Your task to perform on an android device: What's the weather going to be this weekend? Image 0: 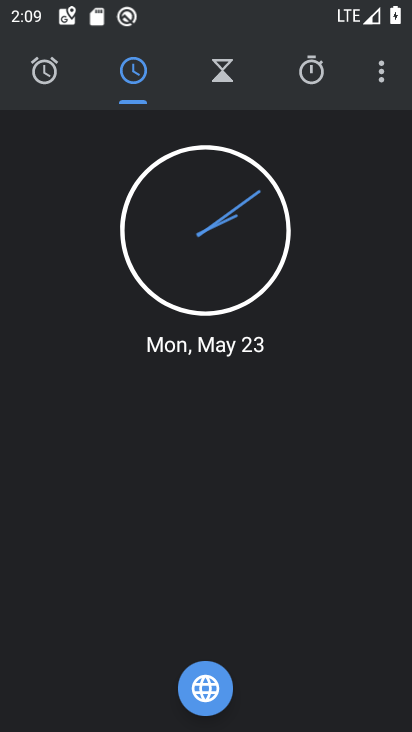
Step 0: press home button
Your task to perform on an android device: What's the weather going to be this weekend? Image 1: 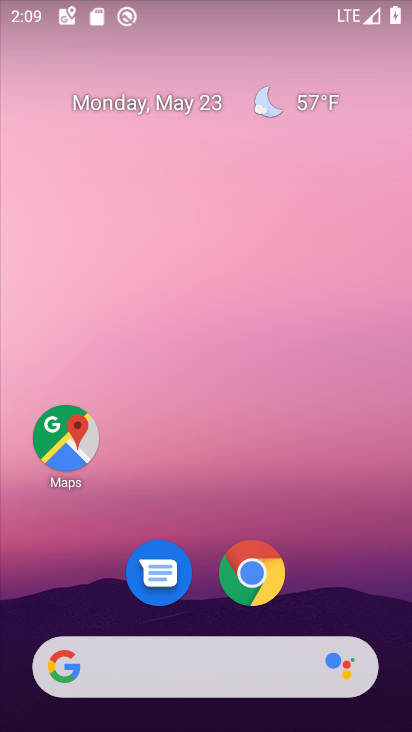
Step 1: drag from (323, 557) to (313, 111)
Your task to perform on an android device: What's the weather going to be this weekend? Image 2: 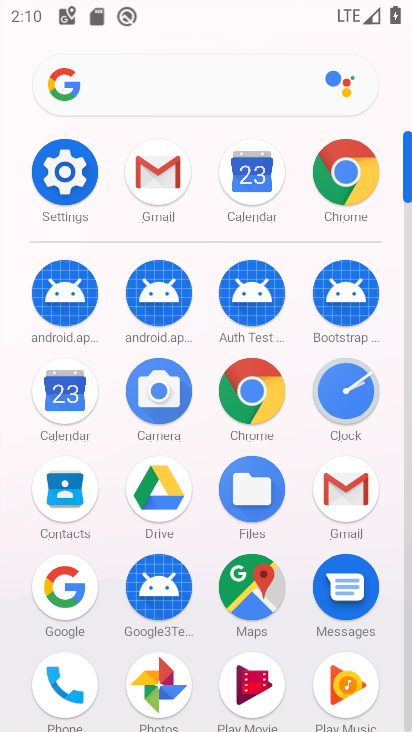
Step 2: click (57, 591)
Your task to perform on an android device: What's the weather going to be this weekend? Image 3: 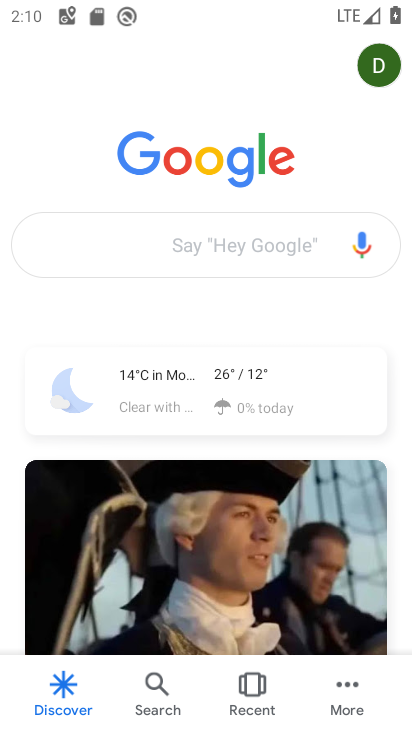
Step 3: click (140, 222)
Your task to perform on an android device: What's the weather going to be this weekend? Image 4: 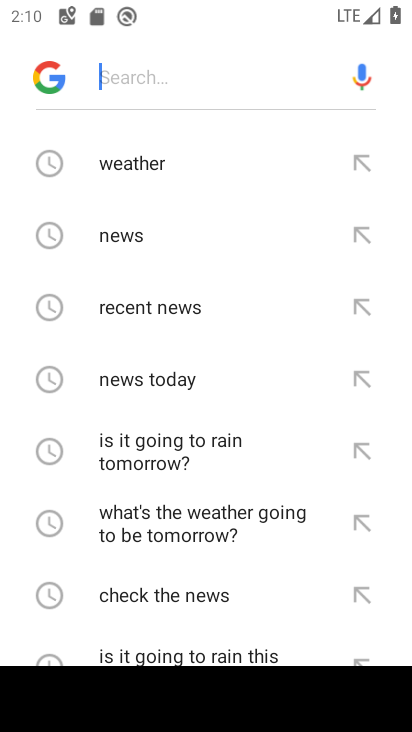
Step 4: click (120, 172)
Your task to perform on an android device: What's the weather going to be this weekend? Image 5: 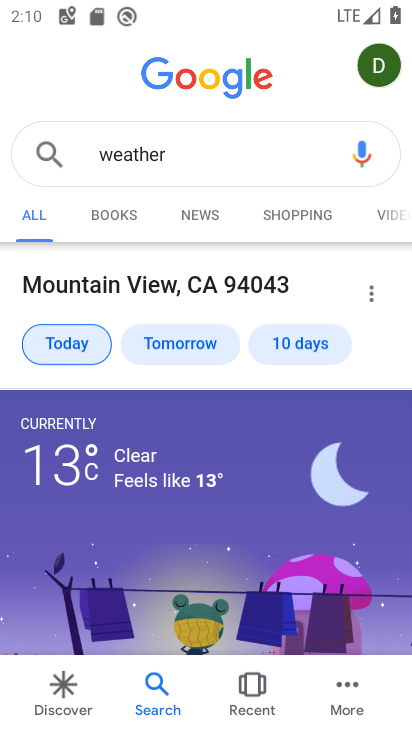
Step 5: click (296, 338)
Your task to perform on an android device: What's the weather going to be this weekend? Image 6: 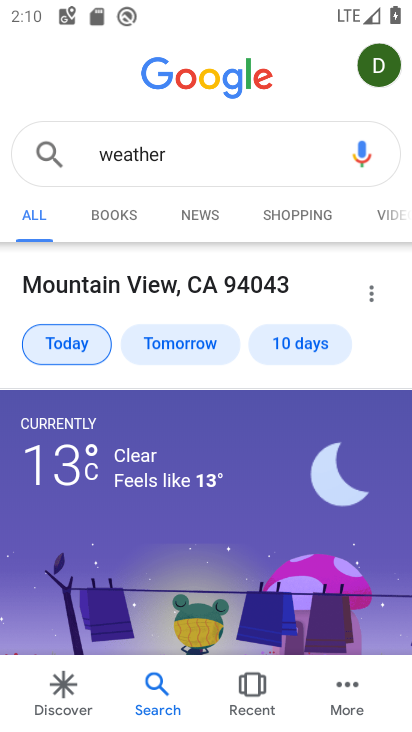
Step 6: click (286, 338)
Your task to perform on an android device: What's the weather going to be this weekend? Image 7: 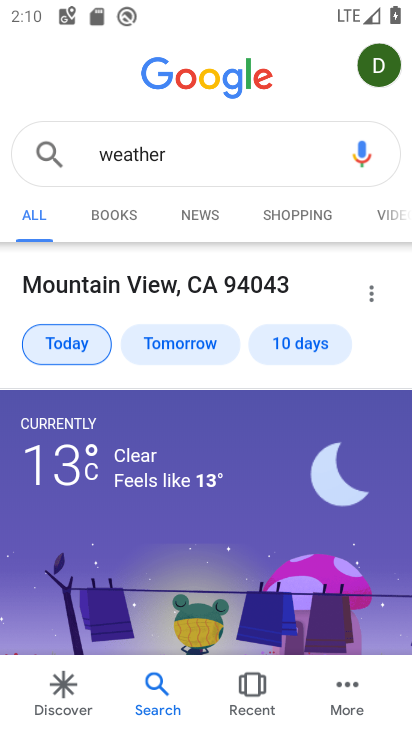
Step 7: click (286, 338)
Your task to perform on an android device: What's the weather going to be this weekend? Image 8: 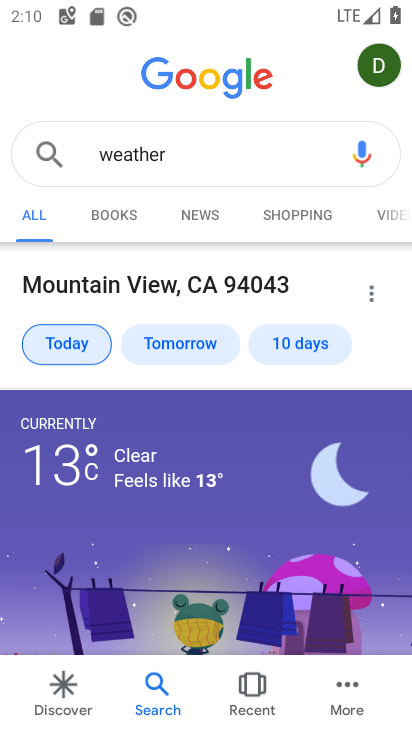
Step 8: click (286, 349)
Your task to perform on an android device: What's the weather going to be this weekend? Image 9: 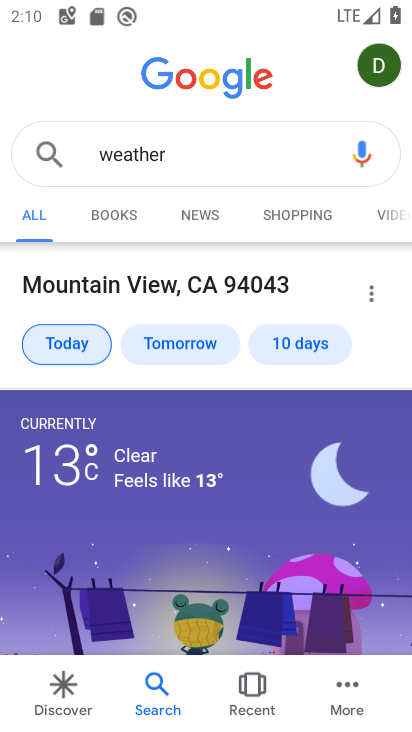
Step 9: click (286, 346)
Your task to perform on an android device: What's the weather going to be this weekend? Image 10: 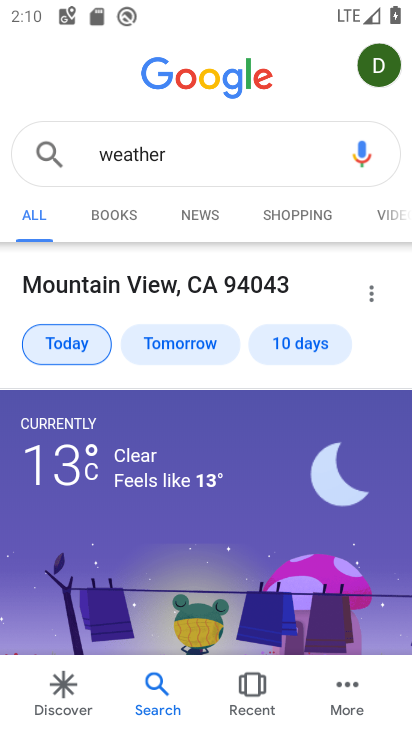
Step 10: click (286, 343)
Your task to perform on an android device: What's the weather going to be this weekend? Image 11: 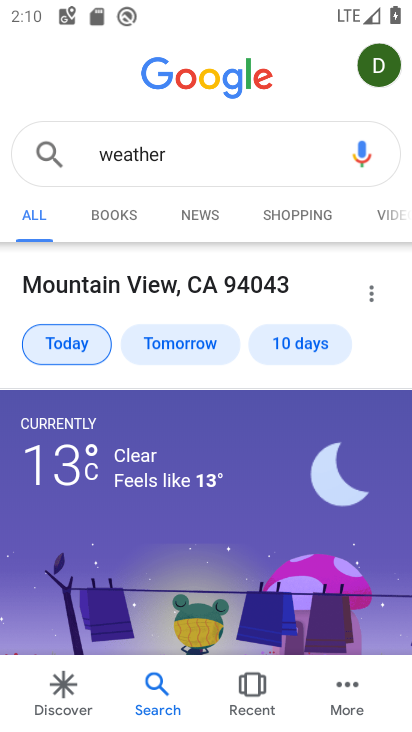
Step 11: click (286, 343)
Your task to perform on an android device: What's the weather going to be this weekend? Image 12: 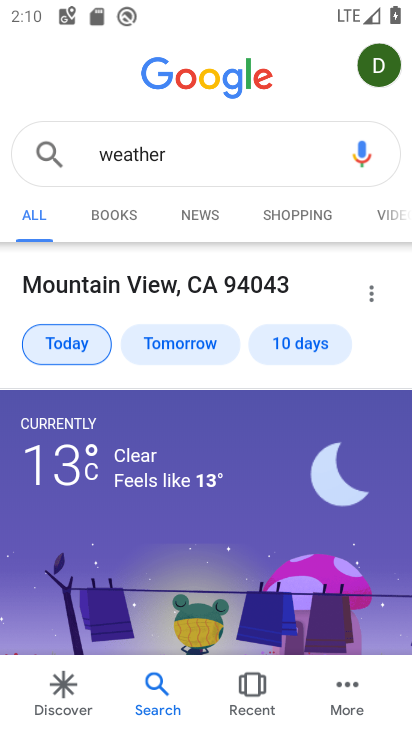
Step 12: click (286, 343)
Your task to perform on an android device: What's the weather going to be this weekend? Image 13: 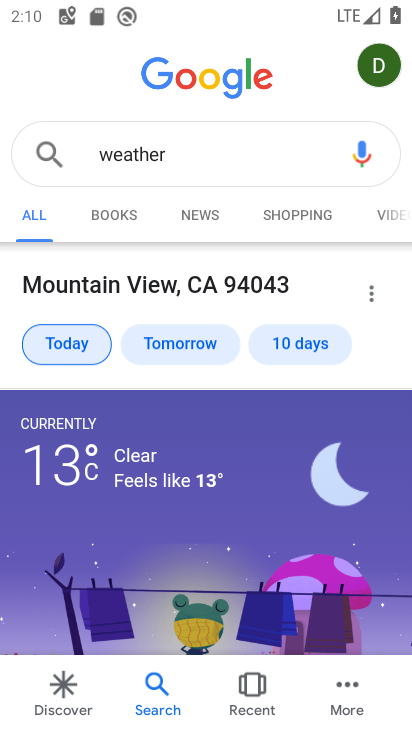
Step 13: task complete